Your task to perform on an android device: Open Google Chrome Image 0: 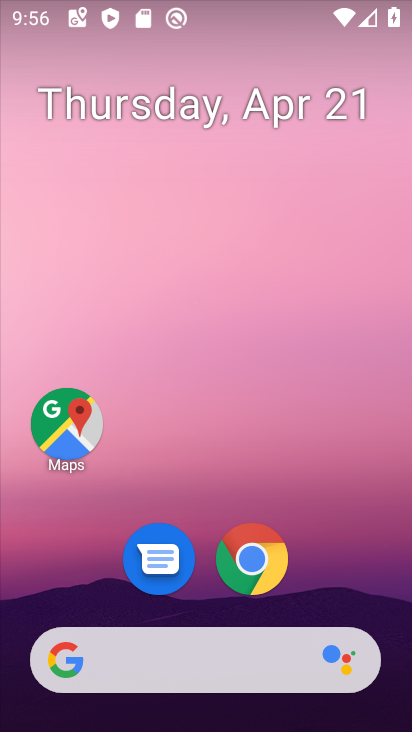
Step 0: drag from (295, 590) to (305, 247)
Your task to perform on an android device: Open Google Chrome Image 1: 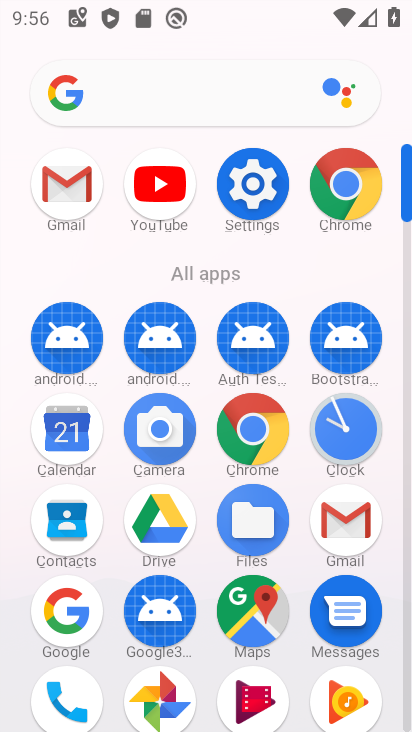
Step 1: click (329, 170)
Your task to perform on an android device: Open Google Chrome Image 2: 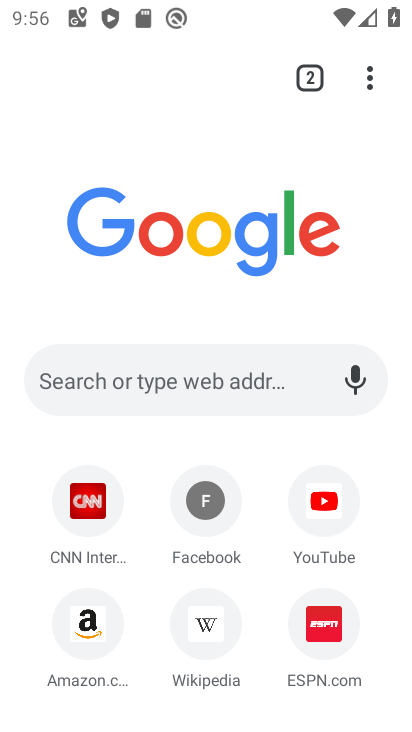
Step 2: task complete